Your task to perform on an android device: Open the calendar app, open the side menu, and click the "Day" option Image 0: 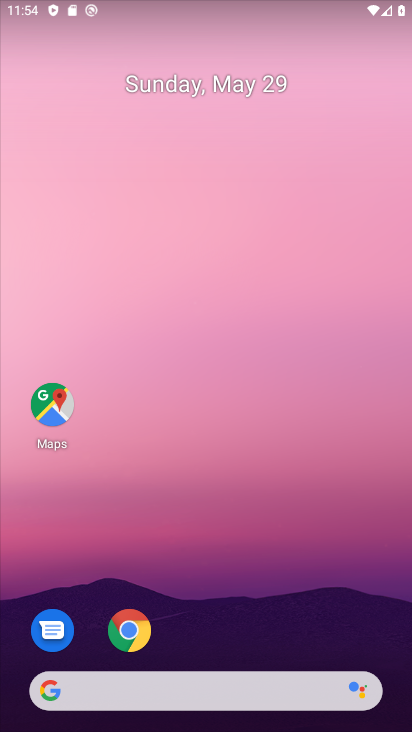
Step 0: drag from (294, 632) to (264, 161)
Your task to perform on an android device: Open the calendar app, open the side menu, and click the "Day" option Image 1: 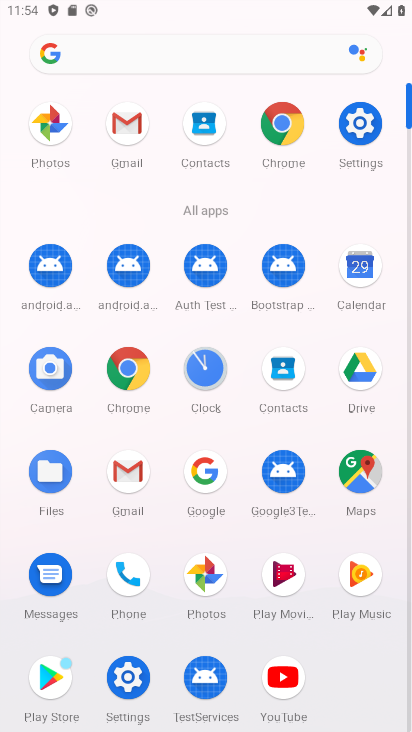
Step 1: click (364, 272)
Your task to perform on an android device: Open the calendar app, open the side menu, and click the "Day" option Image 2: 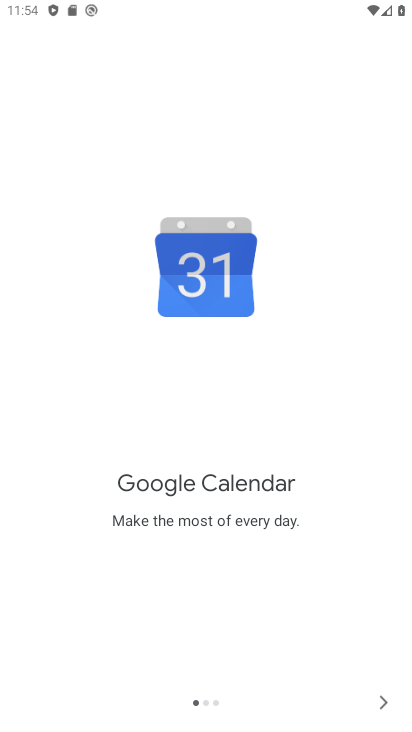
Step 2: click (381, 705)
Your task to perform on an android device: Open the calendar app, open the side menu, and click the "Day" option Image 3: 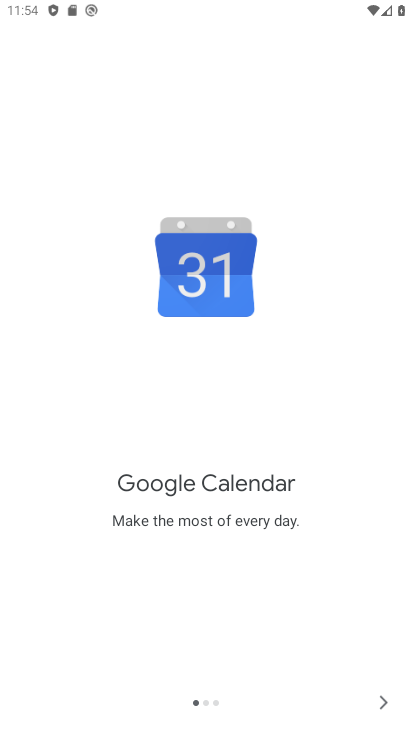
Step 3: click (379, 705)
Your task to perform on an android device: Open the calendar app, open the side menu, and click the "Day" option Image 4: 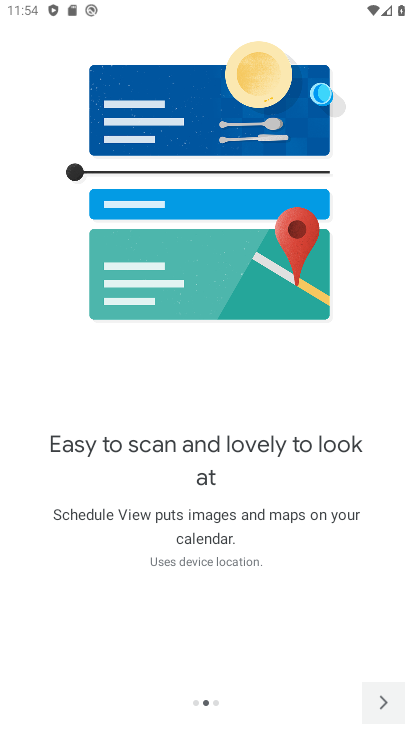
Step 4: click (384, 699)
Your task to perform on an android device: Open the calendar app, open the side menu, and click the "Day" option Image 5: 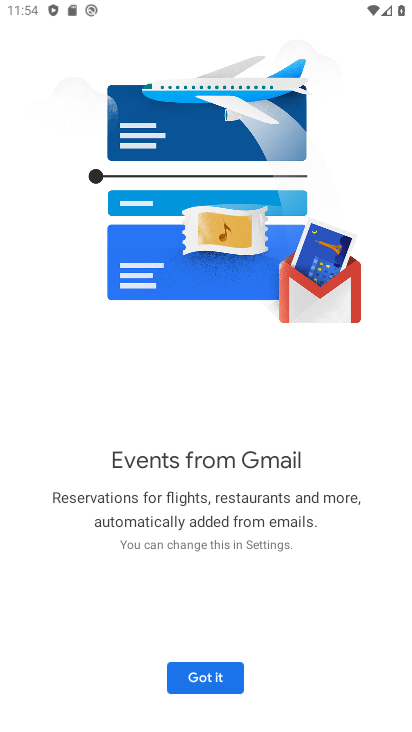
Step 5: click (213, 671)
Your task to perform on an android device: Open the calendar app, open the side menu, and click the "Day" option Image 6: 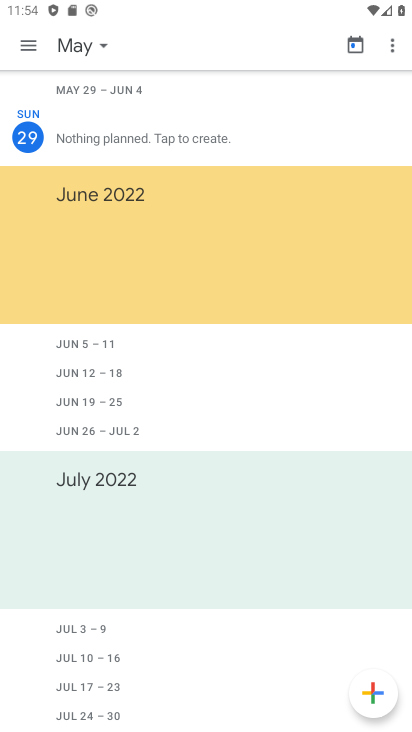
Step 6: click (30, 48)
Your task to perform on an android device: Open the calendar app, open the side menu, and click the "Day" option Image 7: 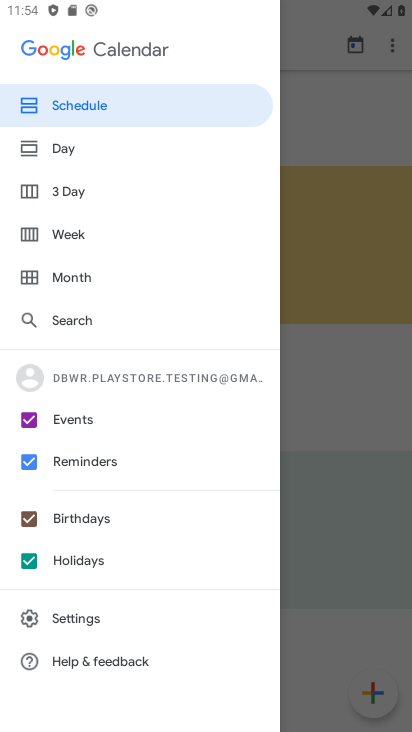
Step 7: click (63, 152)
Your task to perform on an android device: Open the calendar app, open the side menu, and click the "Day" option Image 8: 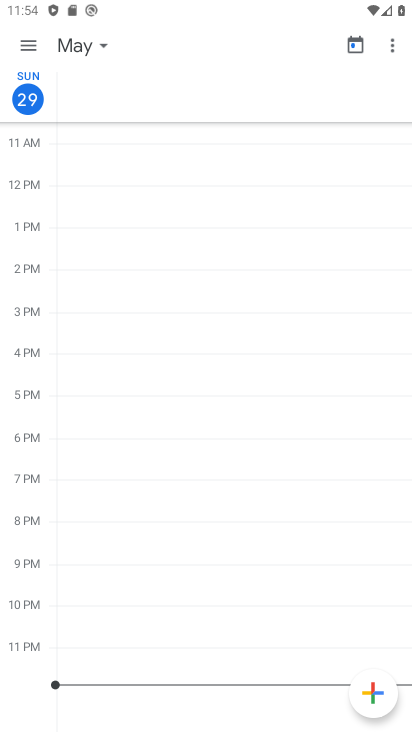
Step 8: task complete